Your task to perform on an android device: Search for Italian restaurants on Maps Image 0: 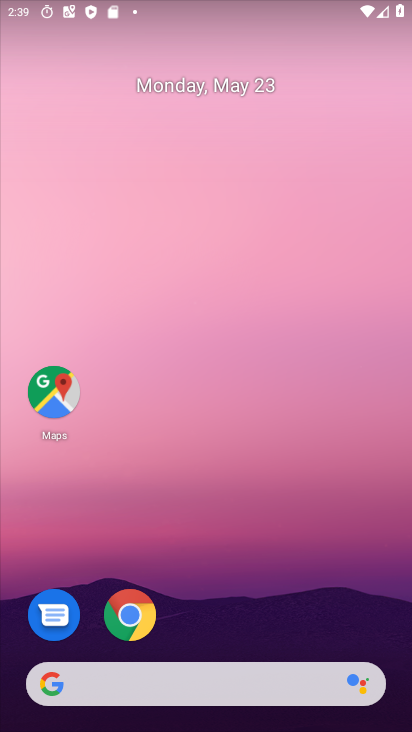
Step 0: click (58, 395)
Your task to perform on an android device: Search for Italian restaurants on Maps Image 1: 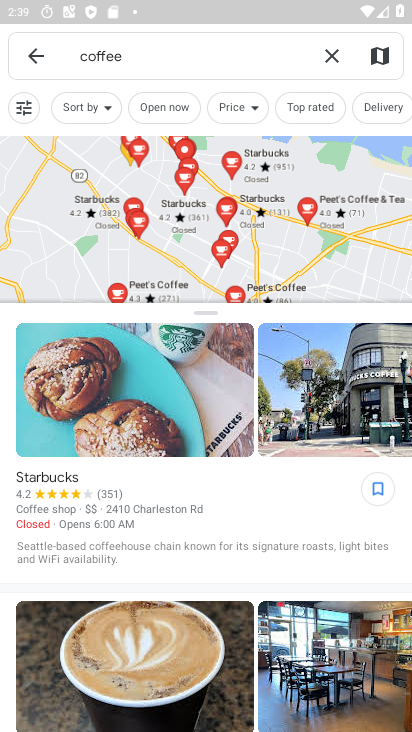
Step 1: click (334, 58)
Your task to perform on an android device: Search for Italian restaurants on Maps Image 2: 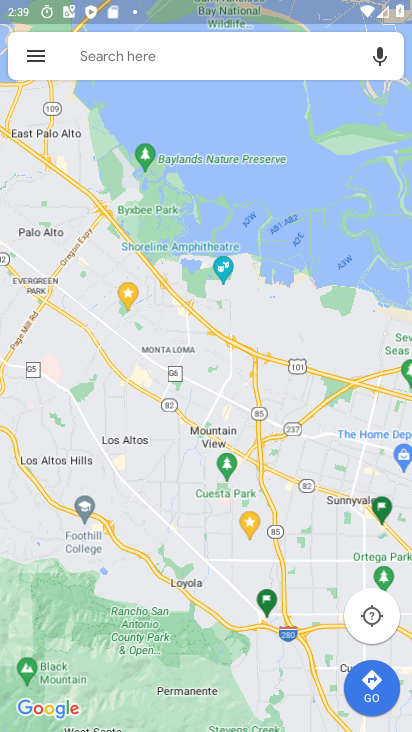
Step 2: click (95, 61)
Your task to perform on an android device: Search for Italian restaurants on Maps Image 3: 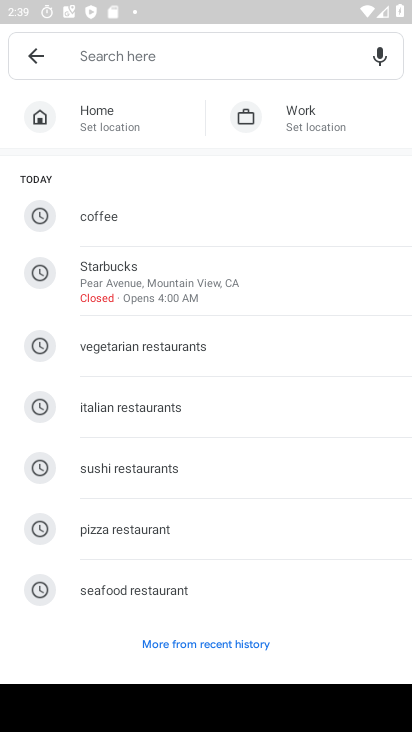
Step 3: type "italian restaurant "
Your task to perform on an android device: Search for Italian restaurants on Maps Image 4: 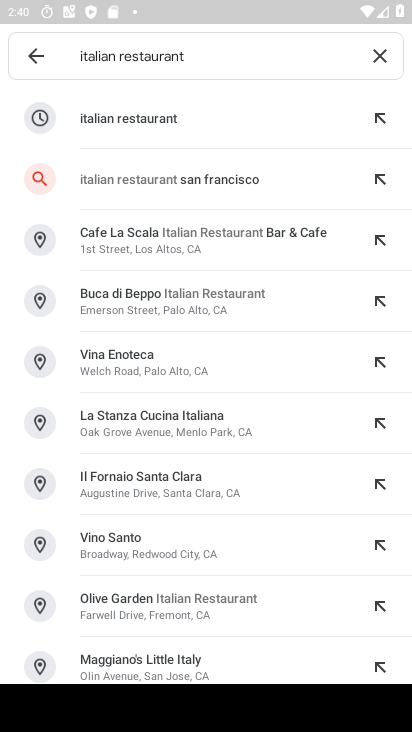
Step 4: click (126, 119)
Your task to perform on an android device: Search for Italian restaurants on Maps Image 5: 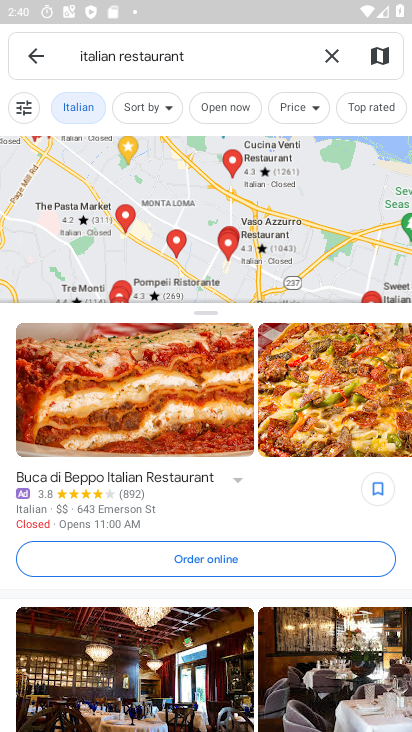
Step 5: task complete